Your task to perform on an android device: turn off data saver in the chrome app Image 0: 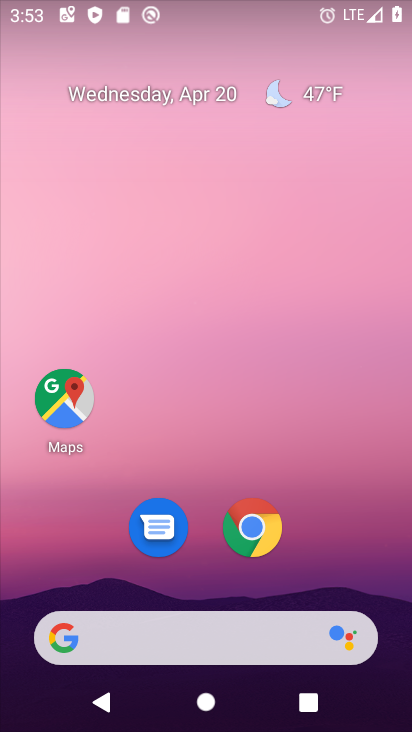
Step 0: click (267, 539)
Your task to perform on an android device: turn off data saver in the chrome app Image 1: 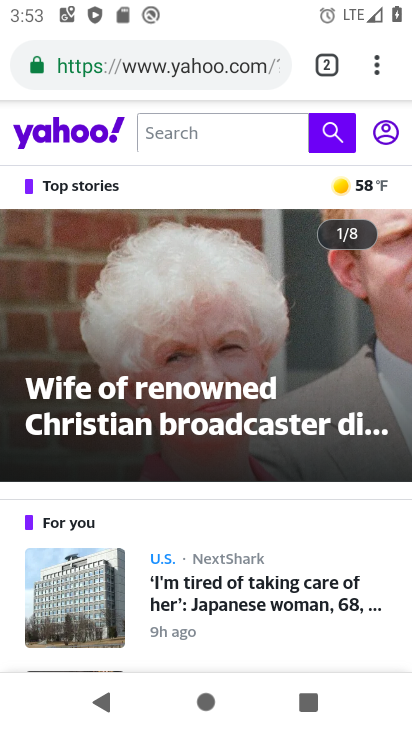
Step 1: drag from (375, 62) to (215, 562)
Your task to perform on an android device: turn off data saver in the chrome app Image 2: 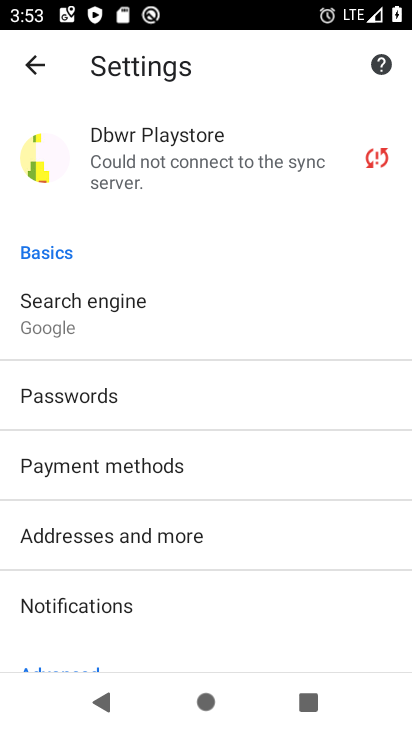
Step 2: drag from (212, 559) to (240, 229)
Your task to perform on an android device: turn off data saver in the chrome app Image 3: 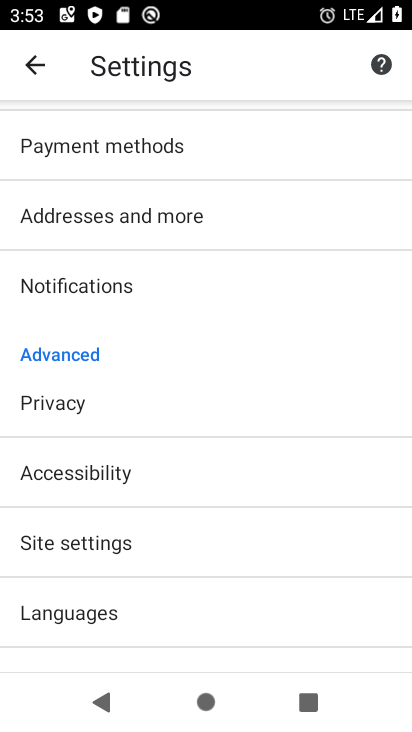
Step 3: drag from (151, 577) to (195, 288)
Your task to perform on an android device: turn off data saver in the chrome app Image 4: 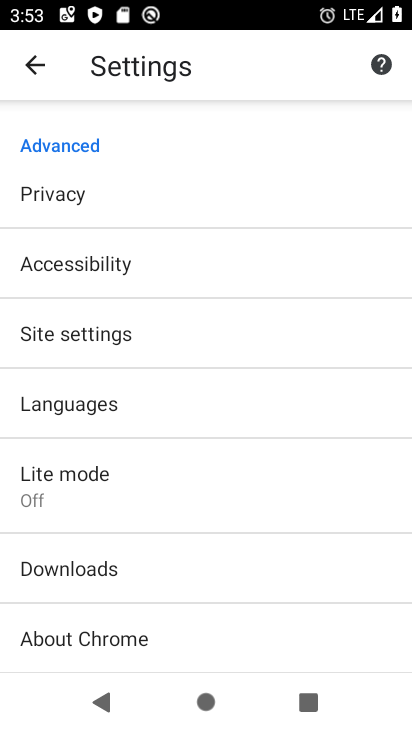
Step 4: drag from (125, 569) to (172, 328)
Your task to perform on an android device: turn off data saver in the chrome app Image 5: 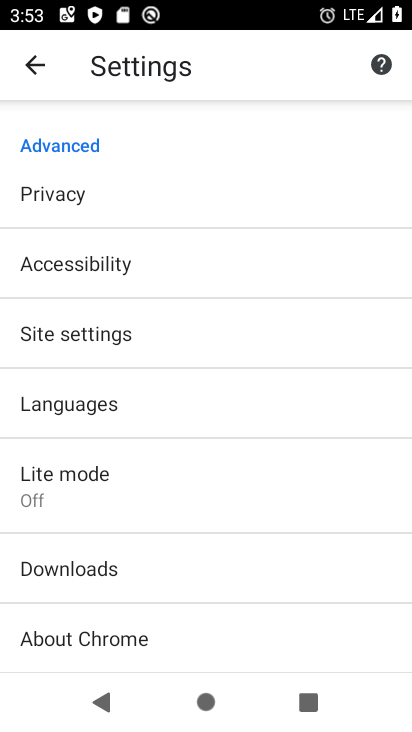
Step 5: click (91, 491)
Your task to perform on an android device: turn off data saver in the chrome app Image 6: 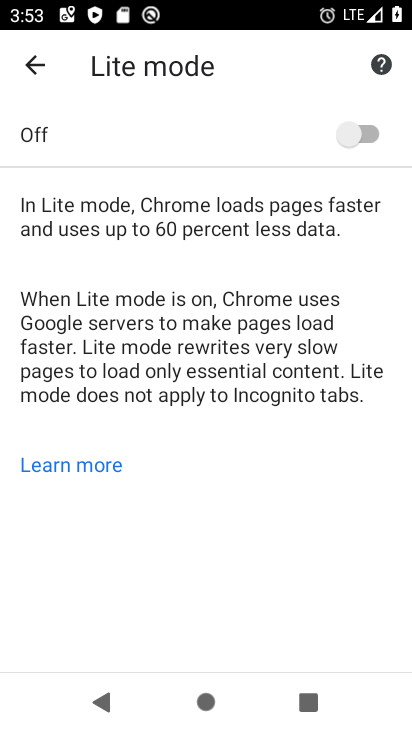
Step 6: task complete